Your task to perform on an android device: When is my next meeting? Image 0: 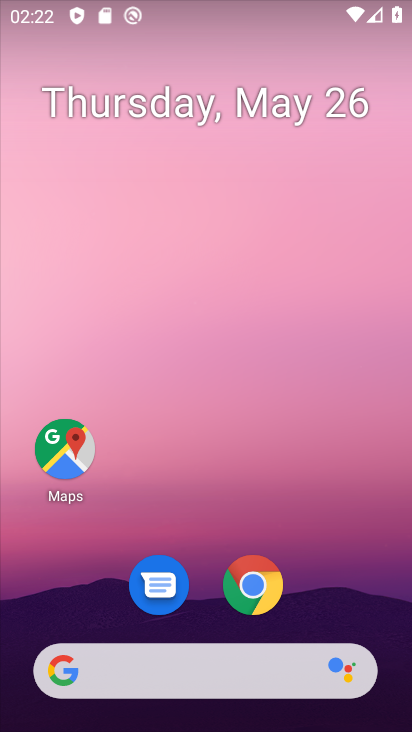
Step 0: drag from (237, 458) to (234, 49)
Your task to perform on an android device: When is my next meeting? Image 1: 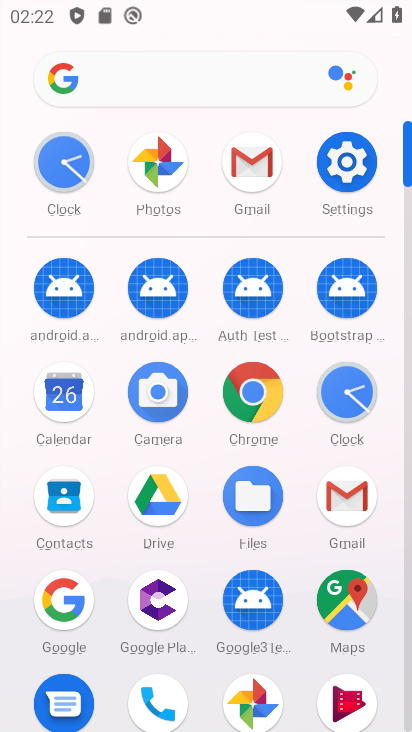
Step 1: click (66, 385)
Your task to perform on an android device: When is my next meeting? Image 2: 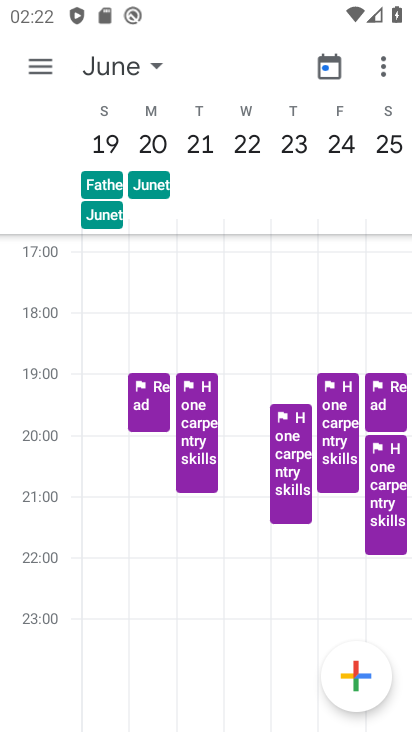
Step 2: drag from (137, 309) to (394, 418)
Your task to perform on an android device: When is my next meeting? Image 3: 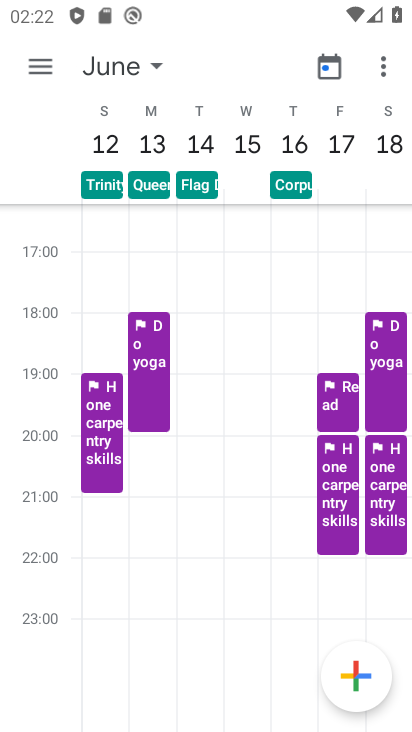
Step 3: drag from (130, 387) to (405, 497)
Your task to perform on an android device: When is my next meeting? Image 4: 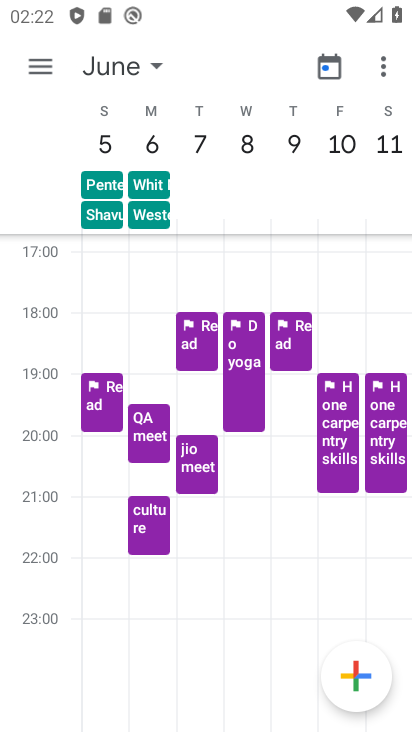
Step 4: drag from (107, 536) to (387, 616)
Your task to perform on an android device: When is my next meeting? Image 5: 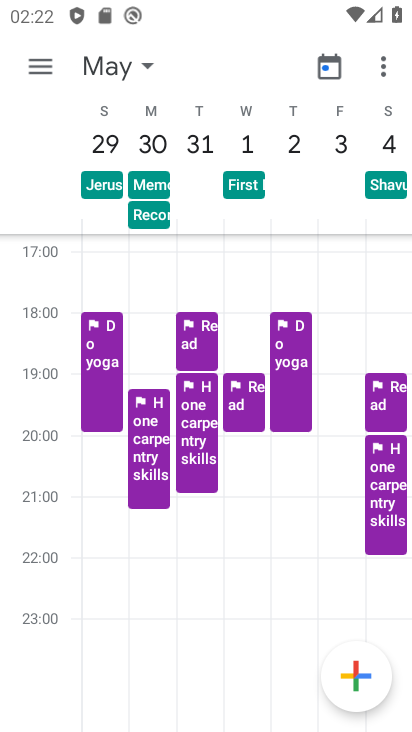
Step 5: drag from (101, 539) to (408, 616)
Your task to perform on an android device: When is my next meeting? Image 6: 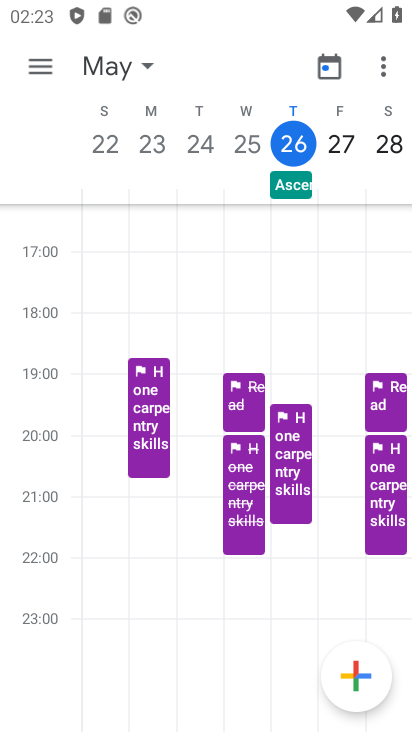
Step 6: click (295, 140)
Your task to perform on an android device: When is my next meeting? Image 7: 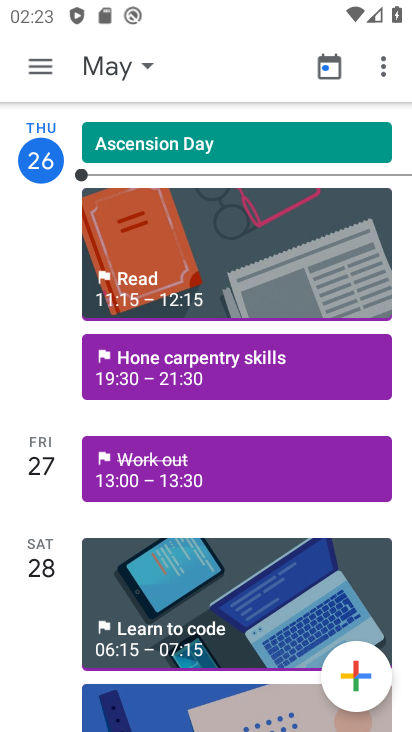
Step 7: task complete